Your task to perform on an android device: all mails in gmail Image 0: 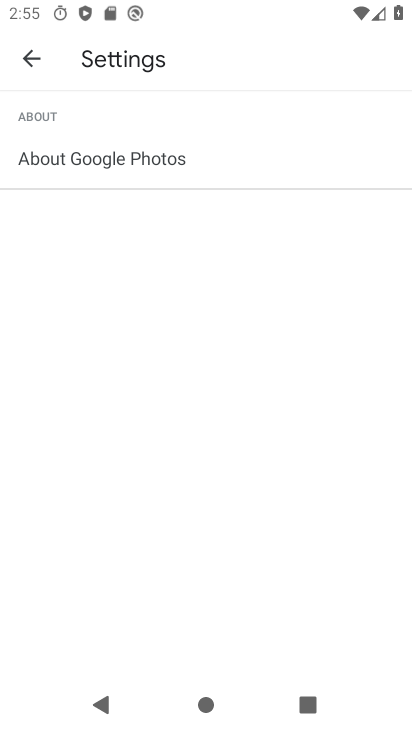
Step 0: press home button
Your task to perform on an android device: all mails in gmail Image 1: 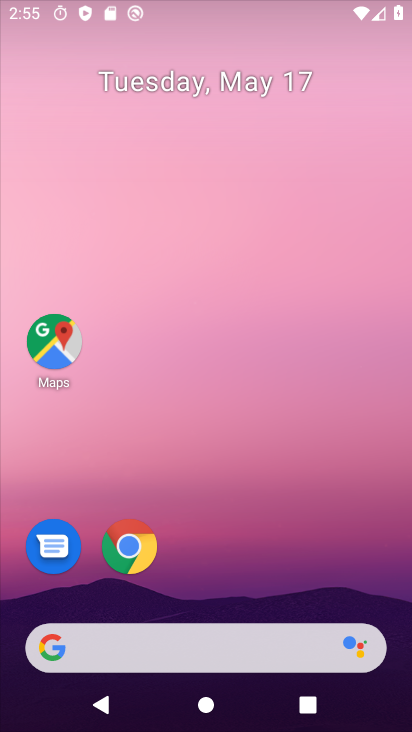
Step 1: drag from (185, 659) to (217, 29)
Your task to perform on an android device: all mails in gmail Image 2: 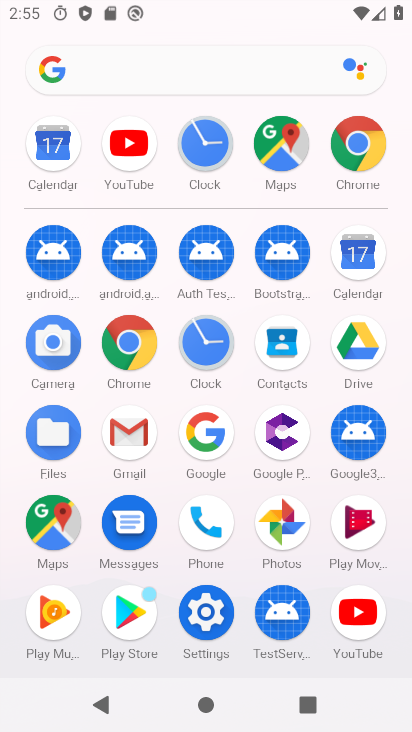
Step 2: click (135, 453)
Your task to perform on an android device: all mails in gmail Image 3: 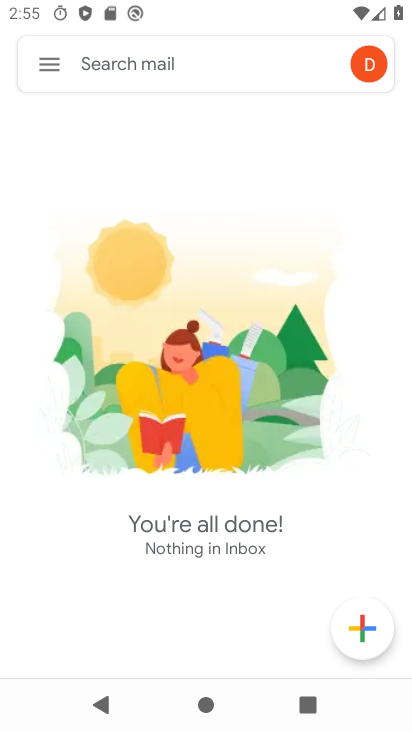
Step 3: click (57, 60)
Your task to perform on an android device: all mails in gmail Image 4: 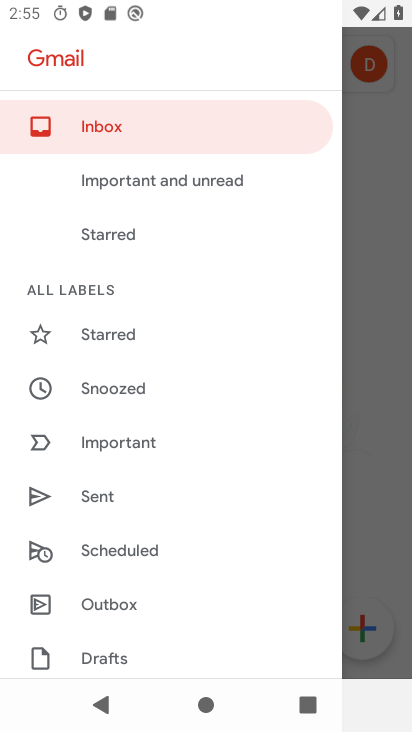
Step 4: drag from (69, 538) to (78, 164)
Your task to perform on an android device: all mails in gmail Image 5: 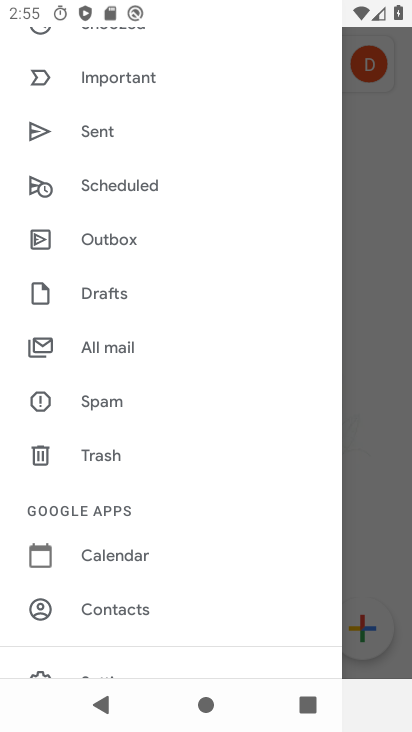
Step 5: click (113, 362)
Your task to perform on an android device: all mails in gmail Image 6: 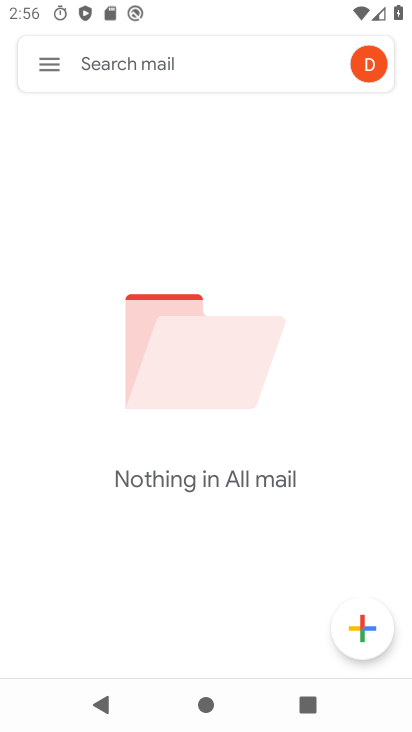
Step 6: task complete